Your task to perform on an android device: View the shopping cart on amazon.com. Search for "apple airpods pro" on amazon.com, select the first entry, add it to the cart, then select checkout. Image 0: 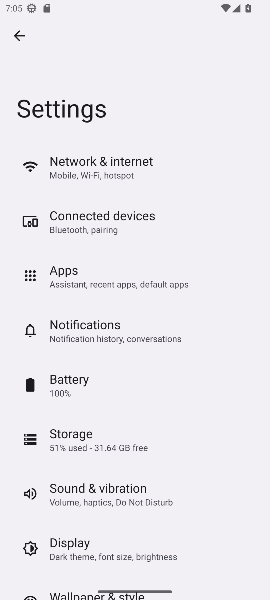
Step 0: press home button
Your task to perform on an android device: View the shopping cart on amazon.com. Search for "apple airpods pro" on amazon.com, select the first entry, add it to the cart, then select checkout. Image 1: 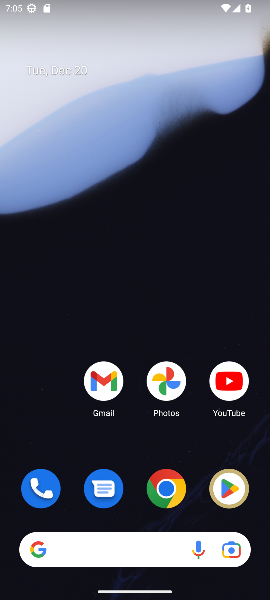
Step 1: drag from (59, 440) to (49, 42)
Your task to perform on an android device: View the shopping cart on amazon.com. Search for "apple airpods pro" on amazon.com, select the first entry, add it to the cart, then select checkout. Image 2: 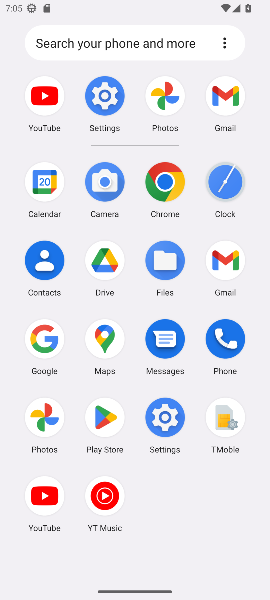
Step 2: click (38, 346)
Your task to perform on an android device: View the shopping cart on amazon.com. Search for "apple airpods pro" on amazon.com, select the first entry, add it to the cart, then select checkout. Image 3: 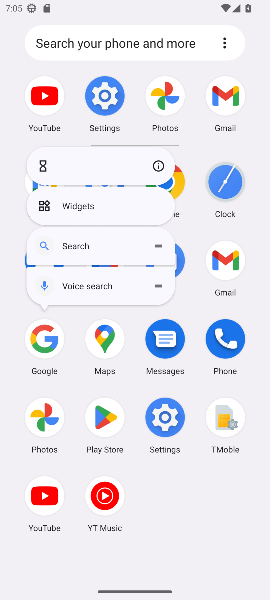
Step 3: click (43, 335)
Your task to perform on an android device: View the shopping cart on amazon.com. Search for "apple airpods pro" on amazon.com, select the first entry, add it to the cart, then select checkout. Image 4: 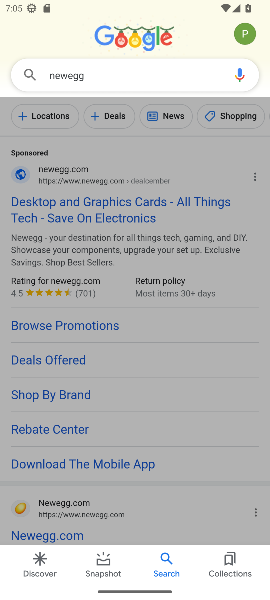
Step 4: click (104, 81)
Your task to perform on an android device: View the shopping cart on amazon.com. Search for "apple airpods pro" on amazon.com, select the first entry, add it to the cart, then select checkout. Image 5: 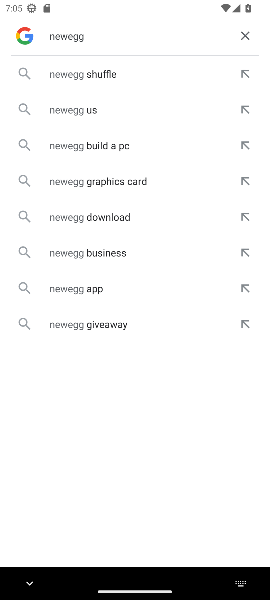
Step 5: click (247, 32)
Your task to perform on an android device: View the shopping cart on amazon.com. Search for "apple airpods pro" on amazon.com, select the first entry, add it to the cart, then select checkout. Image 6: 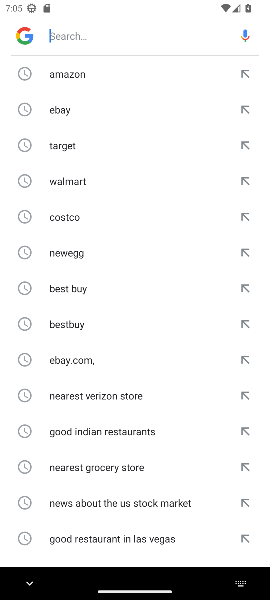
Step 6: type "amazon.com"
Your task to perform on an android device: View the shopping cart on amazon.com. Search for "apple airpods pro" on amazon.com, select the first entry, add it to the cart, then select checkout. Image 7: 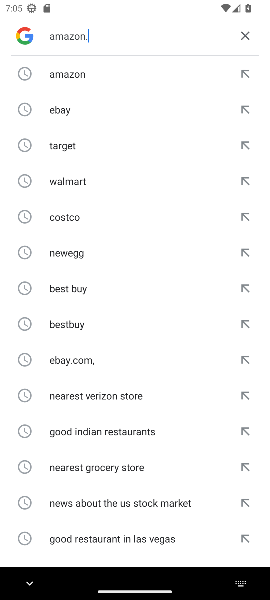
Step 7: press enter
Your task to perform on an android device: View the shopping cart on amazon.com. Search for "apple airpods pro" on amazon.com, select the first entry, add it to the cart, then select checkout. Image 8: 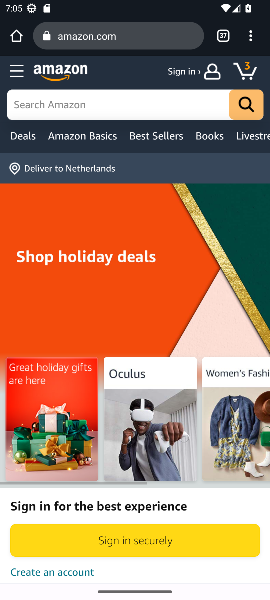
Step 8: click (249, 68)
Your task to perform on an android device: View the shopping cart on amazon.com. Search for "apple airpods pro" on amazon.com, select the first entry, add it to the cart, then select checkout. Image 9: 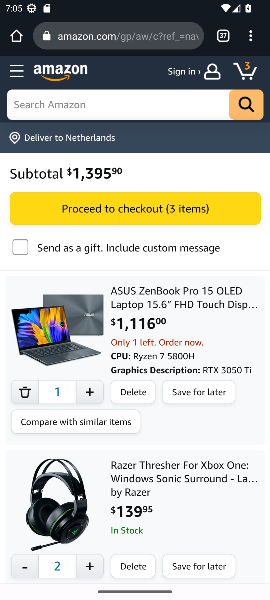
Step 9: click (62, 100)
Your task to perform on an android device: View the shopping cart on amazon.com. Search for "apple airpods pro" on amazon.com, select the first entry, add it to the cart, then select checkout. Image 10: 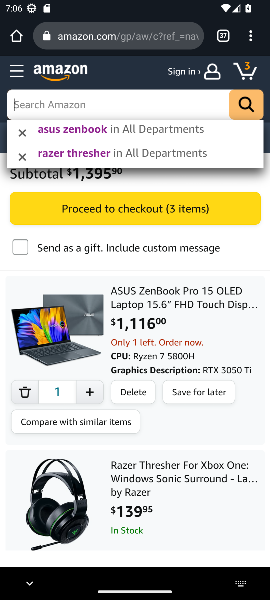
Step 10: type "apple airpods pro"
Your task to perform on an android device: View the shopping cart on amazon.com. Search for "apple airpods pro" on amazon.com, select the first entry, add it to the cart, then select checkout. Image 11: 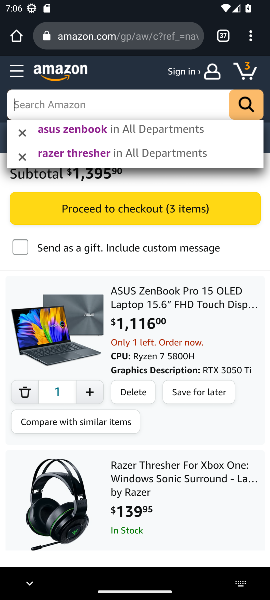
Step 11: press enter
Your task to perform on an android device: View the shopping cart on amazon.com. Search for "apple airpods pro" on amazon.com, select the first entry, add it to the cart, then select checkout. Image 12: 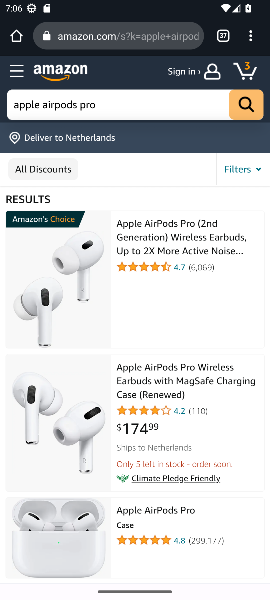
Step 12: click (138, 257)
Your task to perform on an android device: View the shopping cart on amazon.com. Search for "apple airpods pro" on amazon.com, select the first entry, add it to the cart, then select checkout. Image 13: 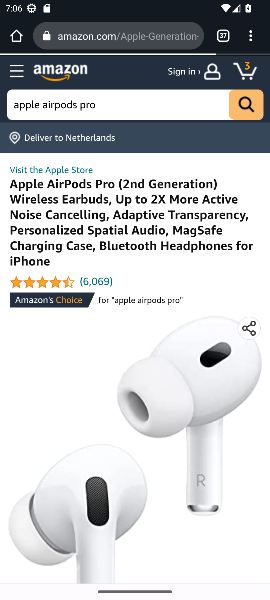
Step 13: drag from (137, 470) to (126, 175)
Your task to perform on an android device: View the shopping cart on amazon.com. Search for "apple airpods pro" on amazon.com, select the first entry, add it to the cart, then select checkout. Image 14: 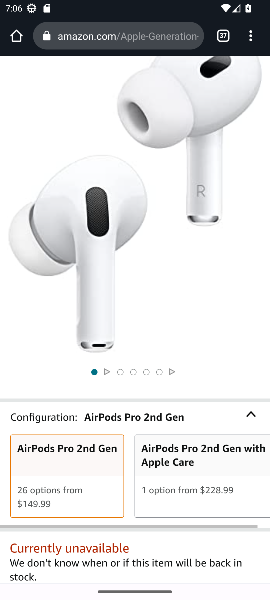
Step 14: drag from (133, 527) to (122, 235)
Your task to perform on an android device: View the shopping cart on amazon.com. Search for "apple airpods pro" on amazon.com, select the first entry, add it to the cart, then select checkout. Image 15: 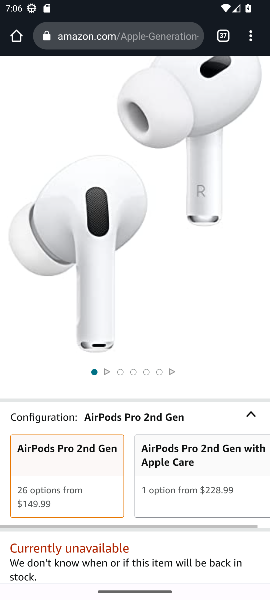
Step 15: press back button
Your task to perform on an android device: View the shopping cart on amazon.com. Search for "apple airpods pro" on amazon.com, select the first entry, add it to the cart, then select checkout. Image 16: 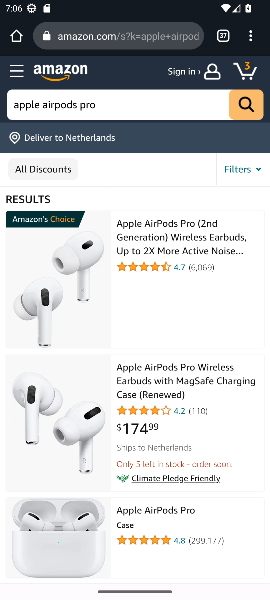
Step 16: click (162, 387)
Your task to perform on an android device: View the shopping cart on amazon.com. Search for "apple airpods pro" on amazon.com, select the first entry, add it to the cart, then select checkout. Image 17: 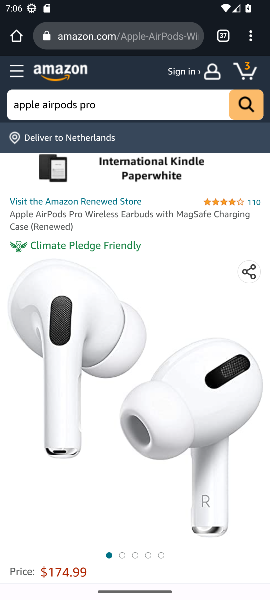
Step 17: drag from (132, 474) to (132, 264)
Your task to perform on an android device: View the shopping cart on amazon.com. Search for "apple airpods pro" on amazon.com, select the first entry, add it to the cart, then select checkout. Image 18: 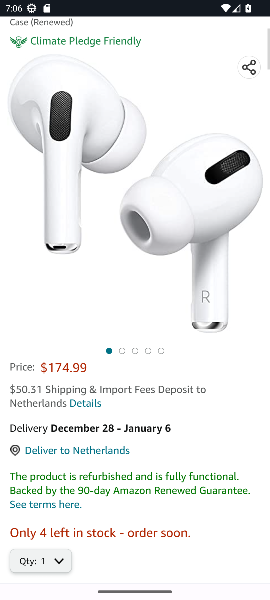
Step 18: drag from (162, 539) to (160, 164)
Your task to perform on an android device: View the shopping cart on amazon.com. Search for "apple airpods pro" on amazon.com, select the first entry, add it to the cart, then select checkout. Image 19: 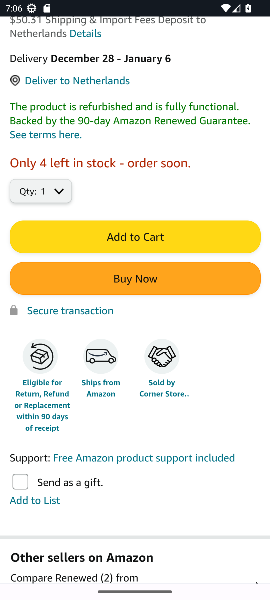
Step 19: click (118, 237)
Your task to perform on an android device: View the shopping cart on amazon.com. Search for "apple airpods pro" on amazon.com, select the first entry, add it to the cart, then select checkout. Image 20: 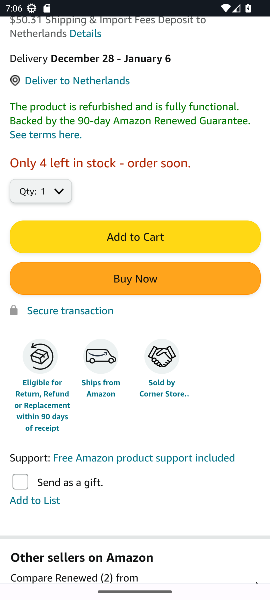
Step 20: click (136, 235)
Your task to perform on an android device: View the shopping cart on amazon.com. Search for "apple airpods pro" on amazon.com, select the first entry, add it to the cart, then select checkout. Image 21: 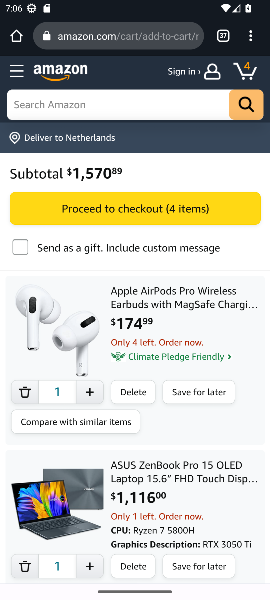
Step 21: task complete